Your task to perform on an android device: turn on translation in the chrome app Image 0: 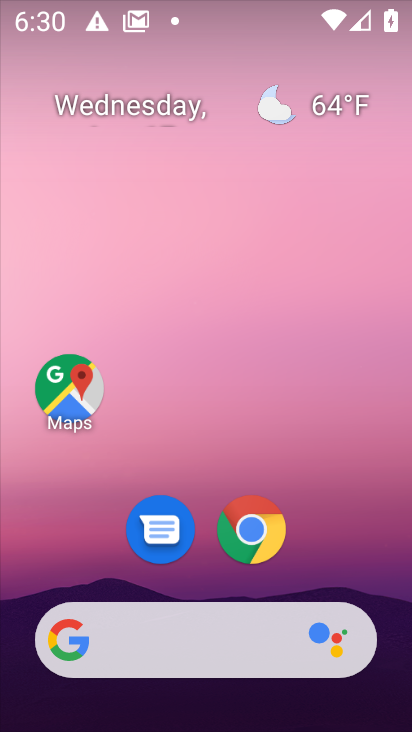
Step 0: click (245, 533)
Your task to perform on an android device: turn on translation in the chrome app Image 1: 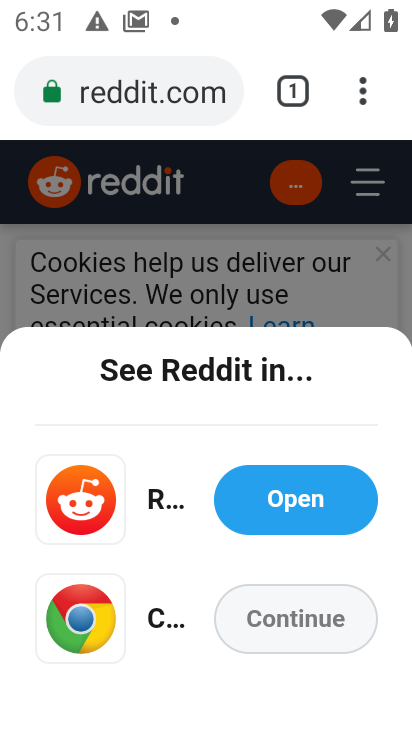
Step 1: click (267, 607)
Your task to perform on an android device: turn on translation in the chrome app Image 2: 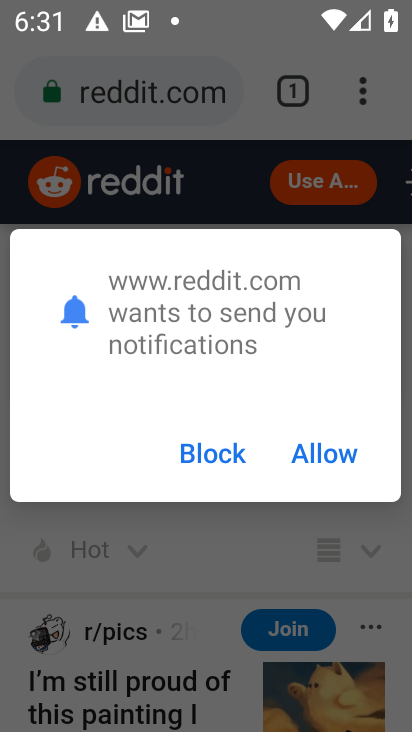
Step 2: click (299, 457)
Your task to perform on an android device: turn on translation in the chrome app Image 3: 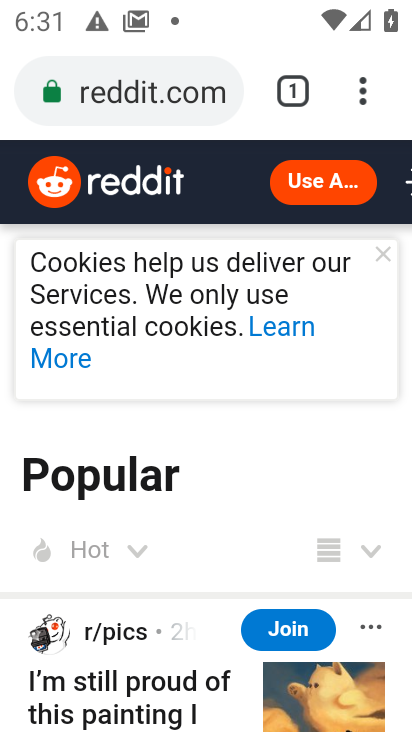
Step 3: click (365, 91)
Your task to perform on an android device: turn on translation in the chrome app Image 4: 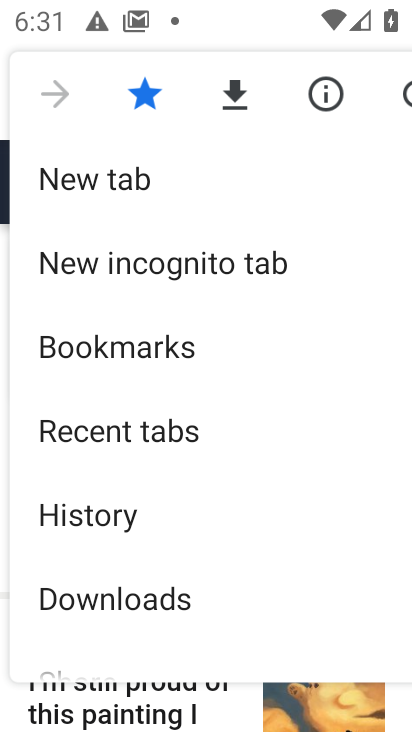
Step 4: drag from (221, 573) to (198, 115)
Your task to perform on an android device: turn on translation in the chrome app Image 5: 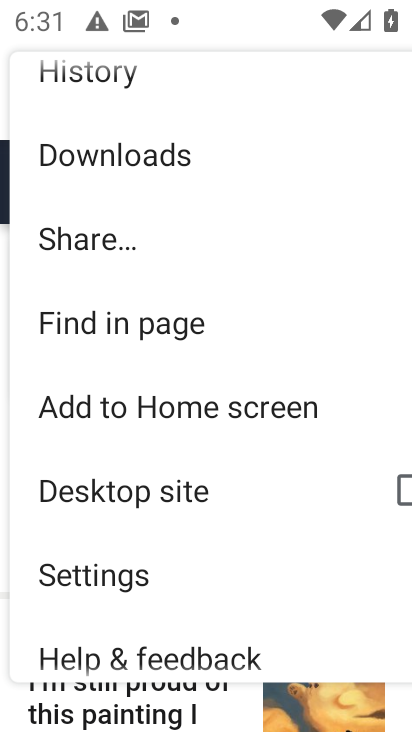
Step 5: click (78, 579)
Your task to perform on an android device: turn on translation in the chrome app Image 6: 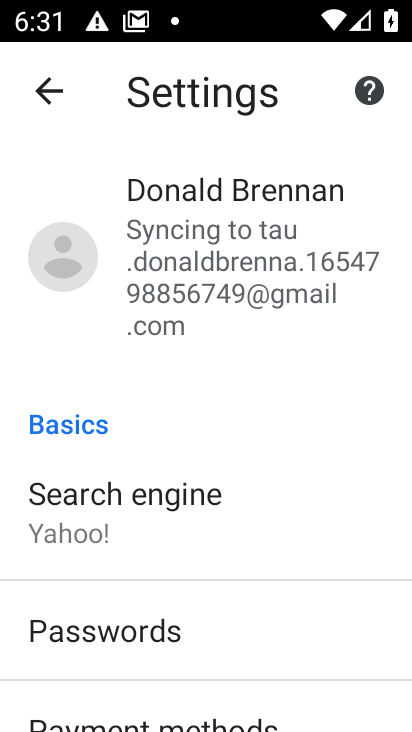
Step 6: drag from (214, 638) to (211, 146)
Your task to perform on an android device: turn on translation in the chrome app Image 7: 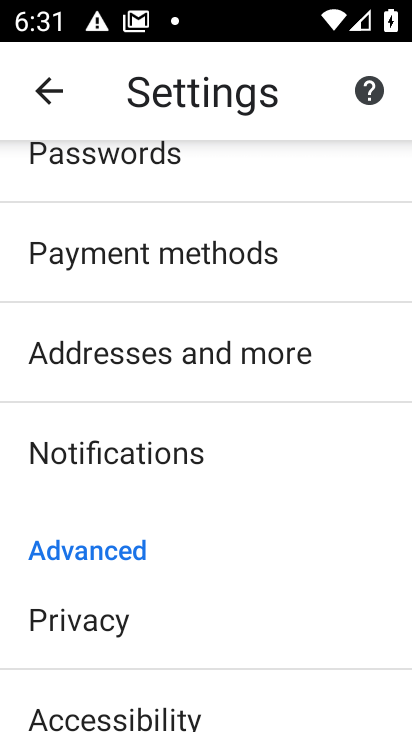
Step 7: drag from (238, 446) to (233, 291)
Your task to perform on an android device: turn on translation in the chrome app Image 8: 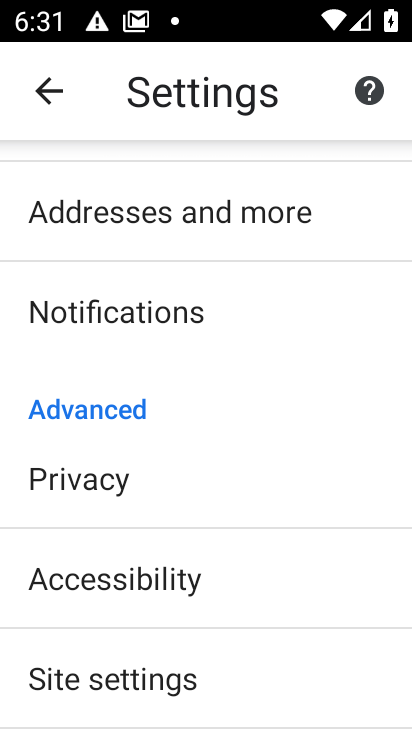
Step 8: click (232, 184)
Your task to perform on an android device: turn on translation in the chrome app Image 9: 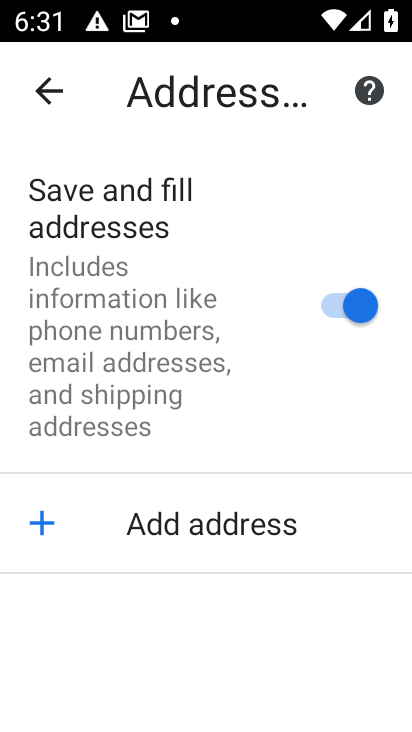
Step 9: click (39, 82)
Your task to perform on an android device: turn on translation in the chrome app Image 10: 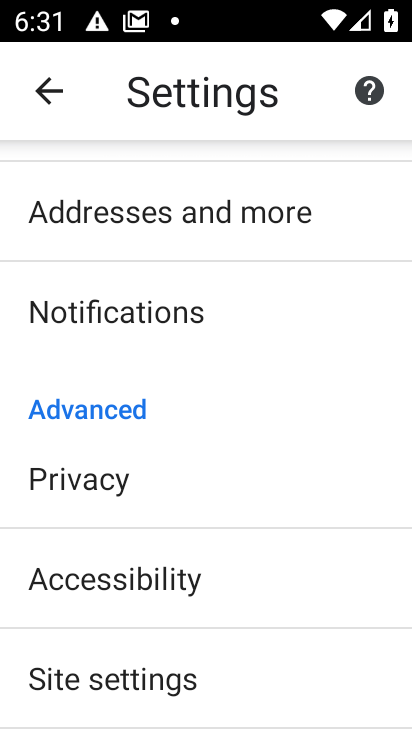
Step 10: drag from (246, 669) to (246, 337)
Your task to perform on an android device: turn on translation in the chrome app Image 11: 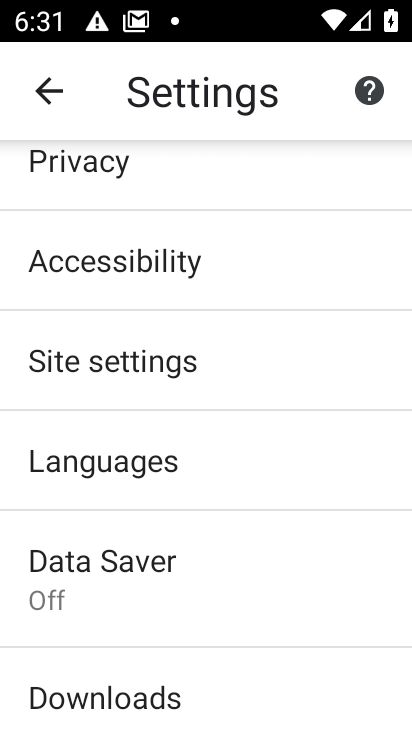
Step 11: click (111, 464)
Your task to perform on an android device: turn on translation in the chrome app Image 12: 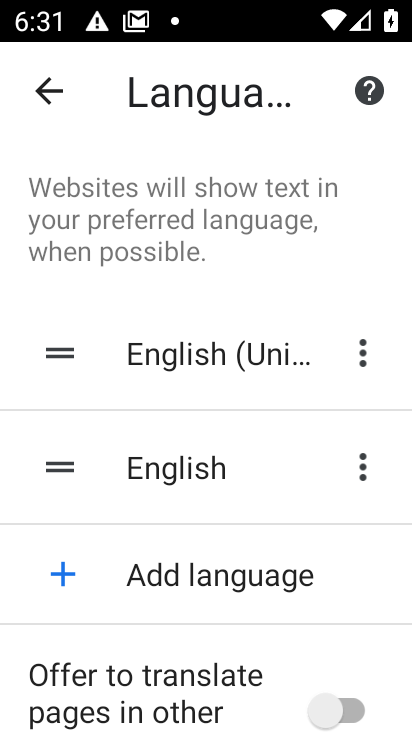
Step 12: click (360, 708)
Your task to perform on an android device: turn on translation in the chrome app Image 13: 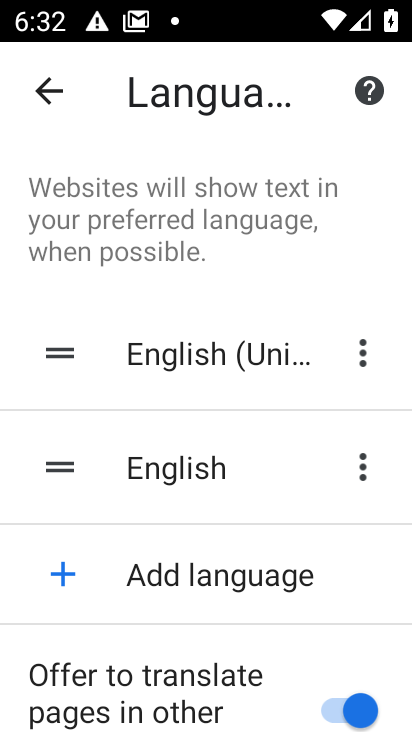
Step 13: task complete